Your task to perform on an android device: turn on the 24-hour format for clock Image 0: 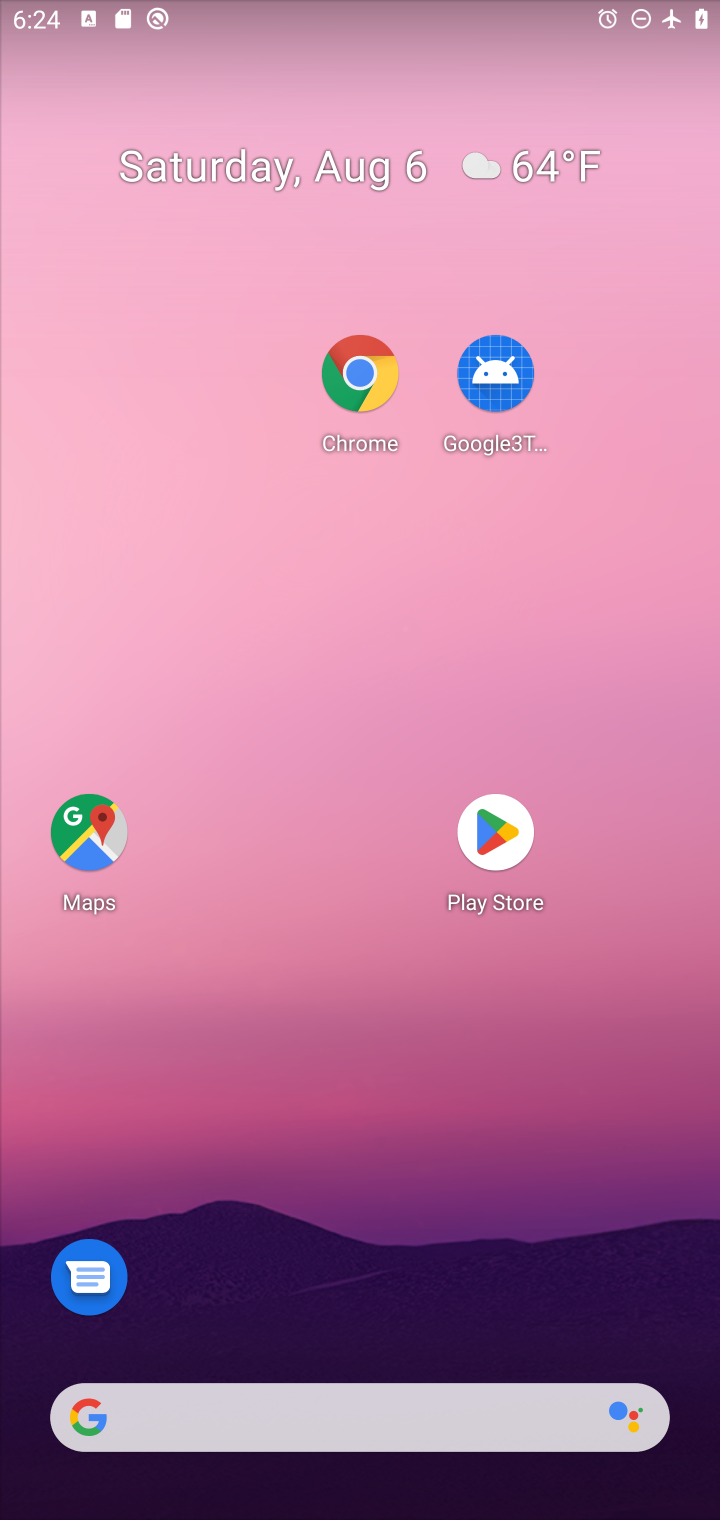
Step 0: drag from (491, 1410) to (152, 7)
Your task to perform on an android device: turn on the 24-hour format for clock Image 1: 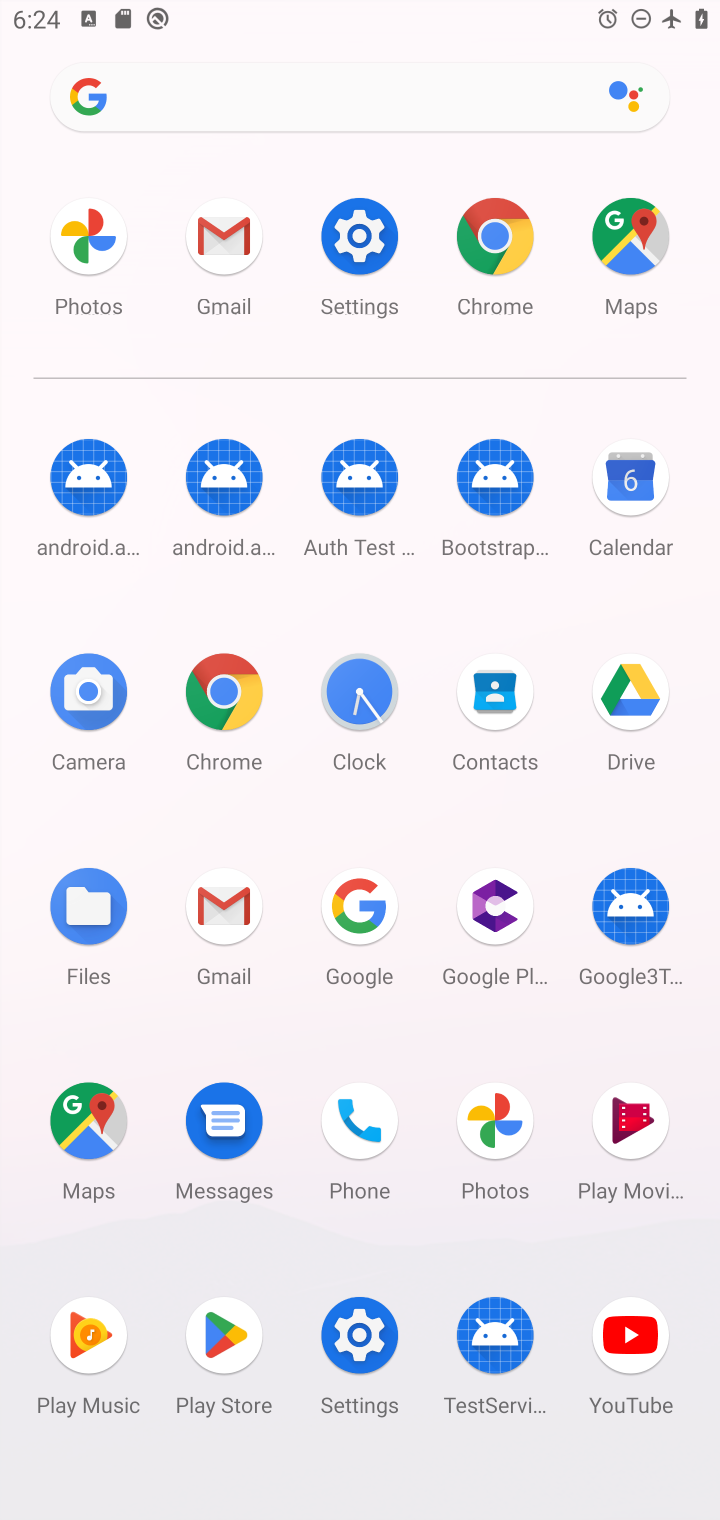
Step 1: click (362, 686)
Your task to perform on an android device: turn on the 24-hour format for clock Image 2: 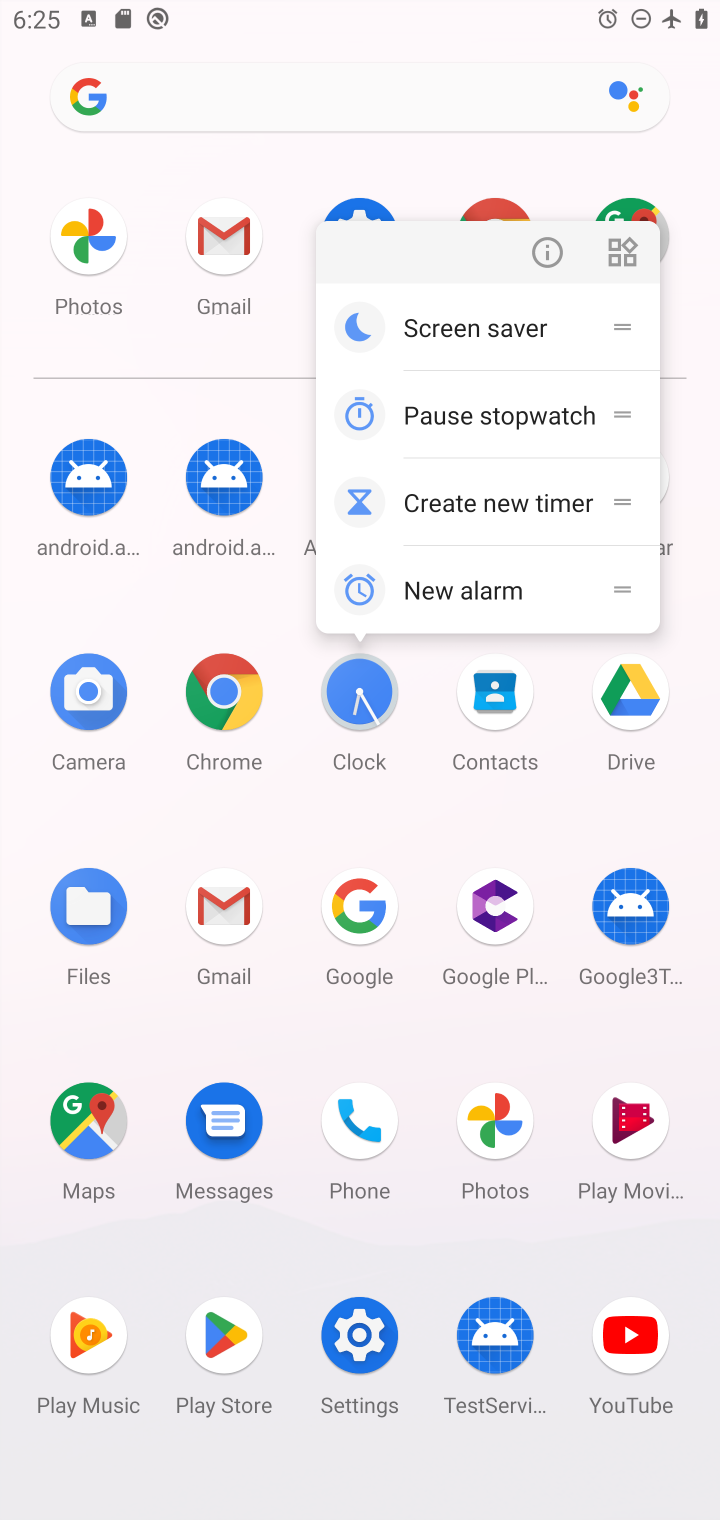
Step 2: click (362, 686)
Your task to perform on an android device: turn on the 24-hour format for clock Image 3: 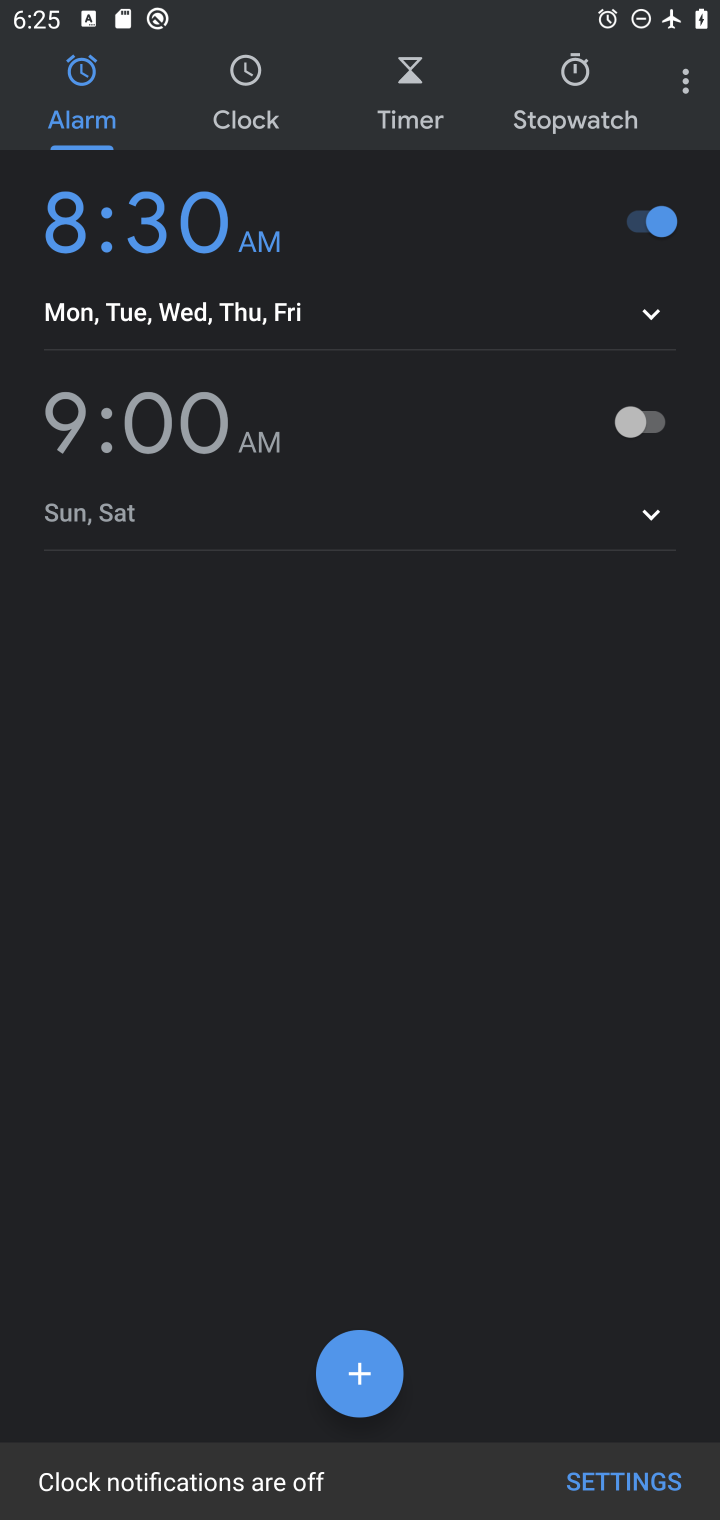
Step 3: click (676, 78)
Your task to perform on an android device: turn on the 24-hour format for clock Image 4: 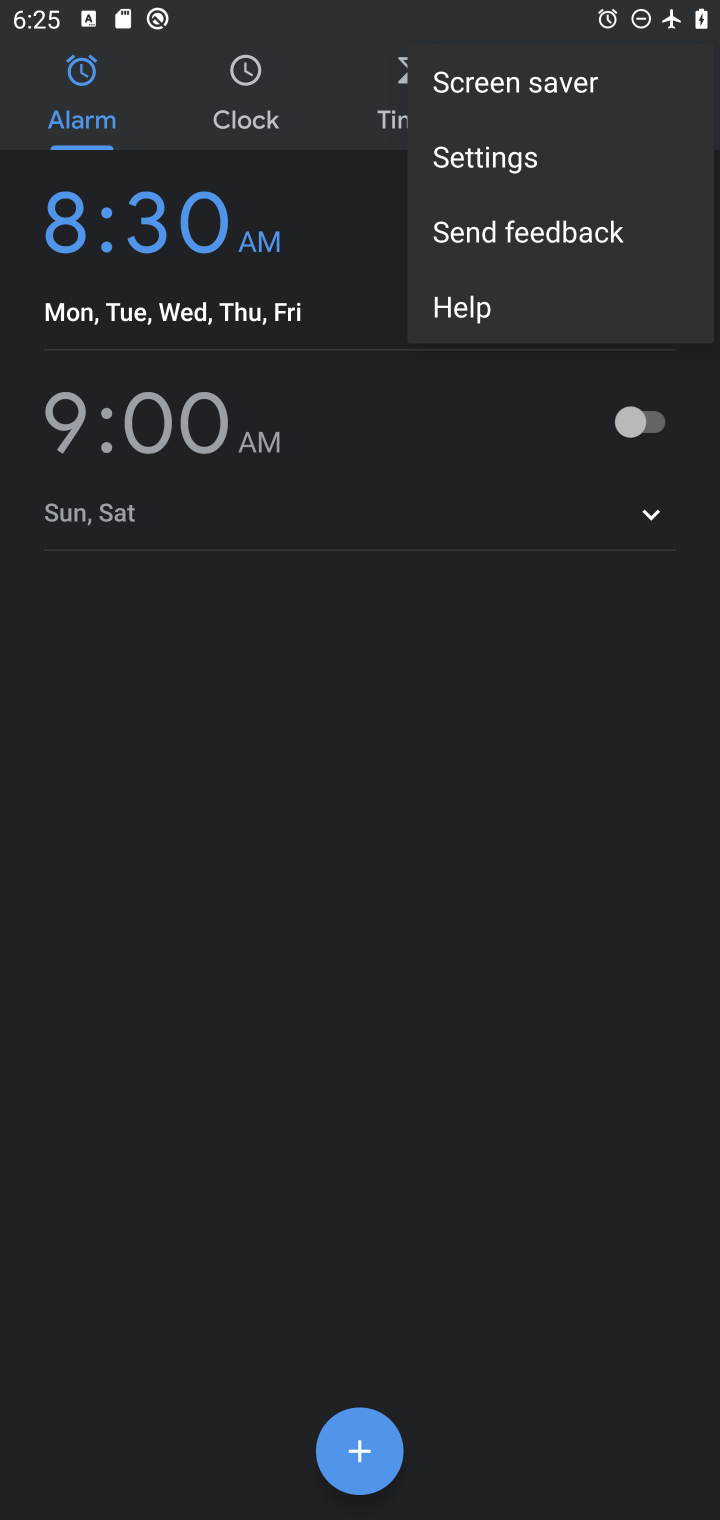
Step 4: click (530, 170)
Your task to perform on an android device: turn on the 24-hour format for clock Image 5: 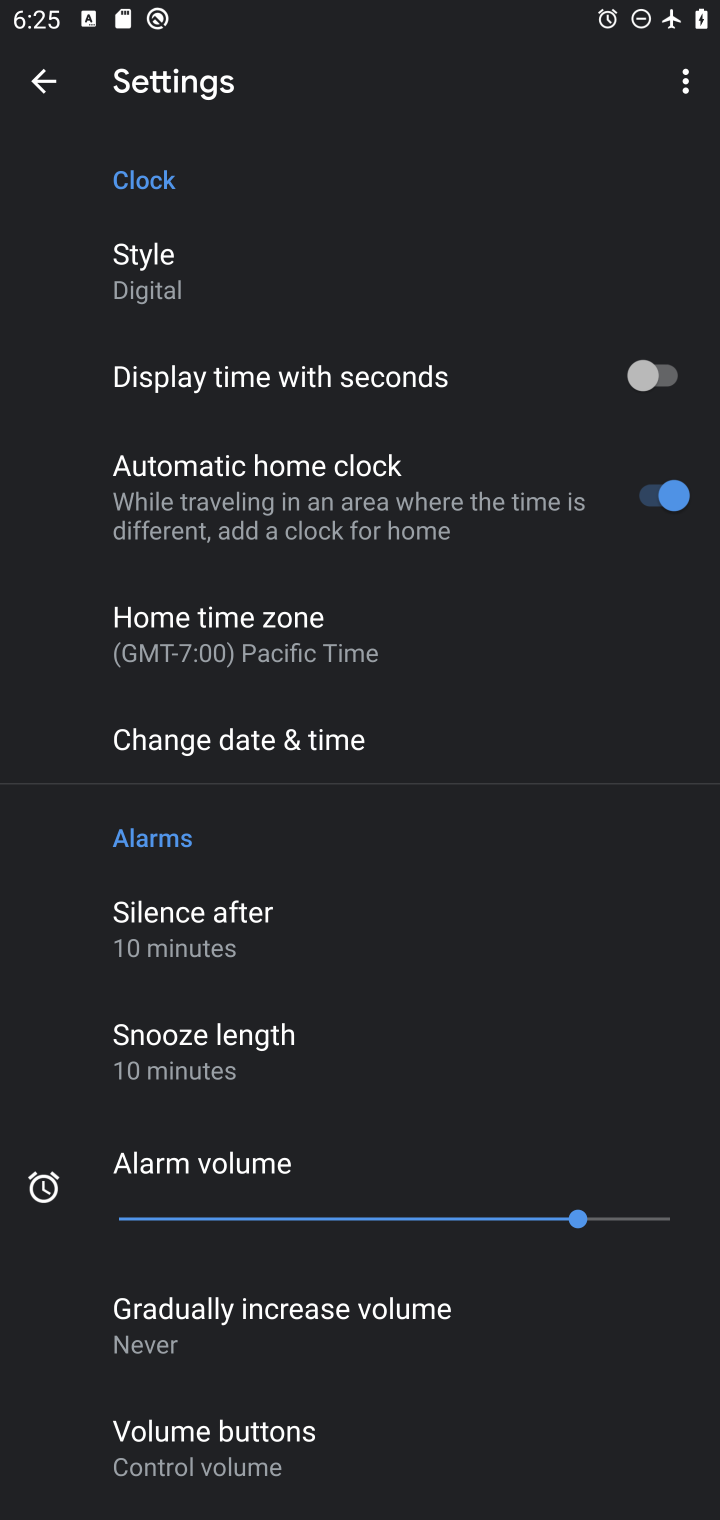
Step 5: click (300, 725)
Your task to perform on an android device: turn on the 24-hour format for clock Image 6: 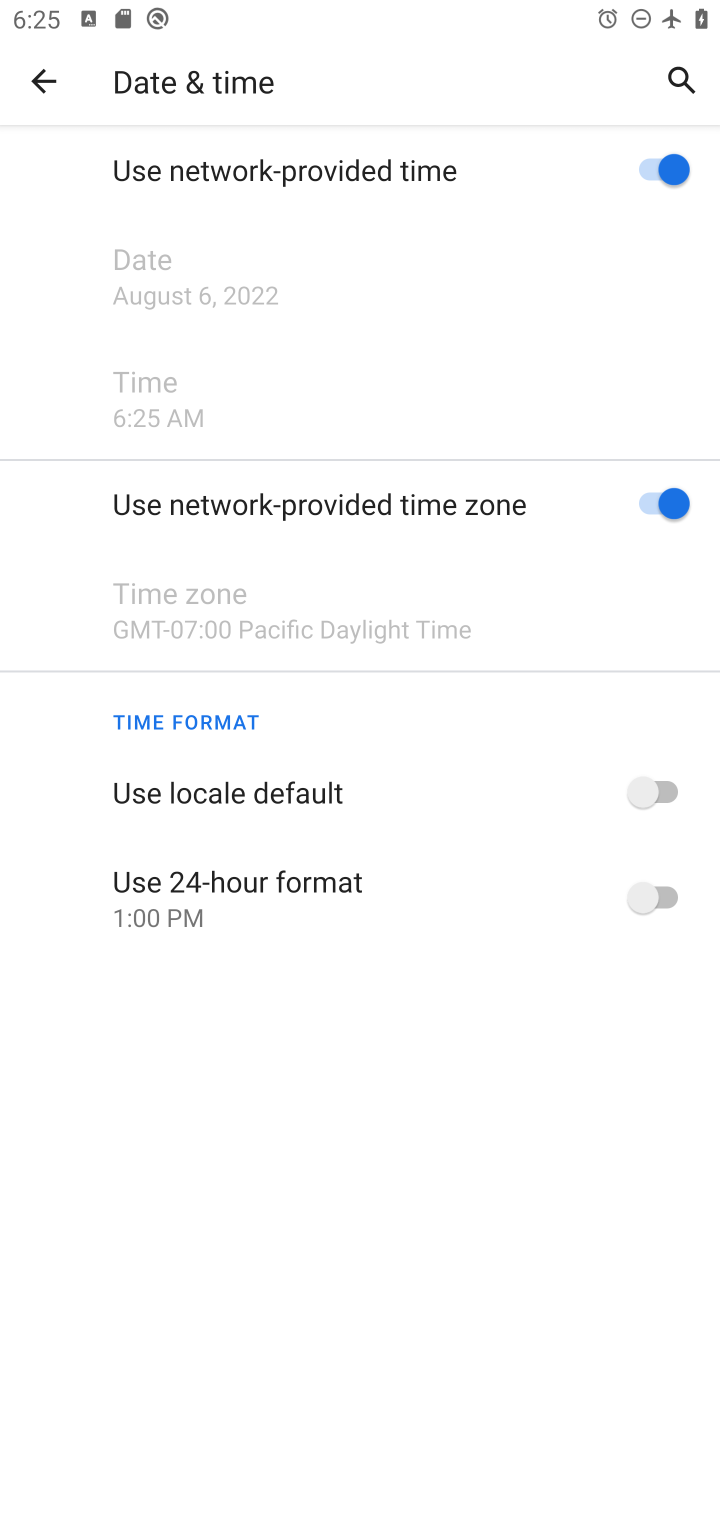
Step 6: click (661, 883)
Your task to perform on an android device: turn on the 24-hour format for clock Image 7: 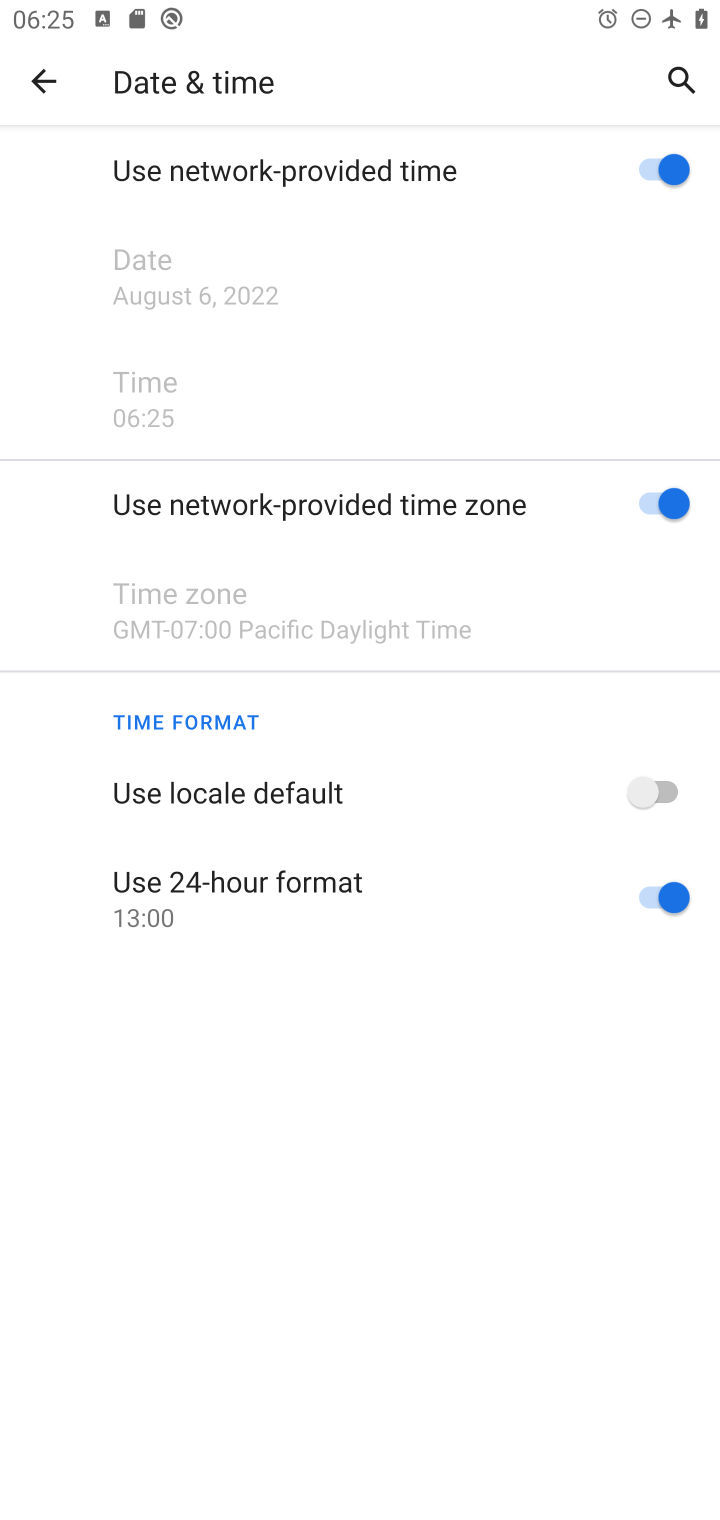
Step 7: task complete